Your task to perform on an android device: Open notification settings Image 0: 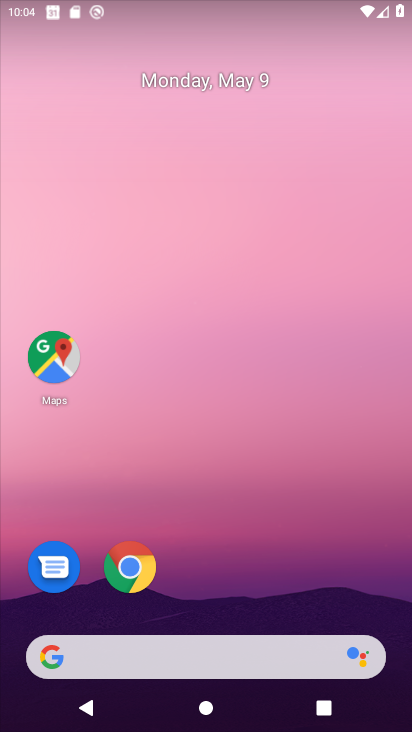
Step 0: drag from (243, 643) to (223, 167)
Your task to perform on an android device: Open notification settings Image 1: 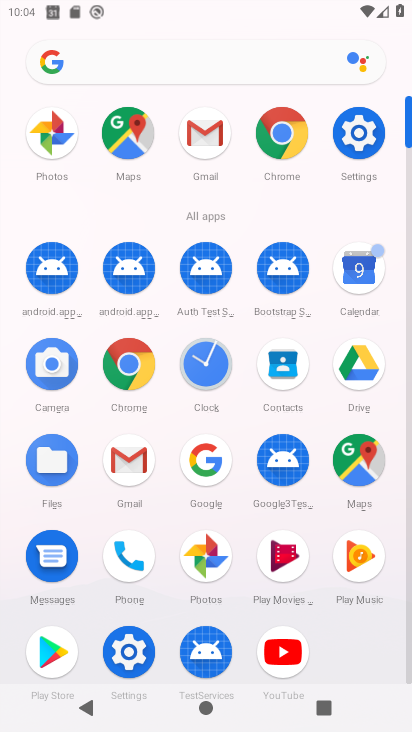
Step 1: click (343, 136)
Your task to perform on an android device: Open notification settings Image 2: 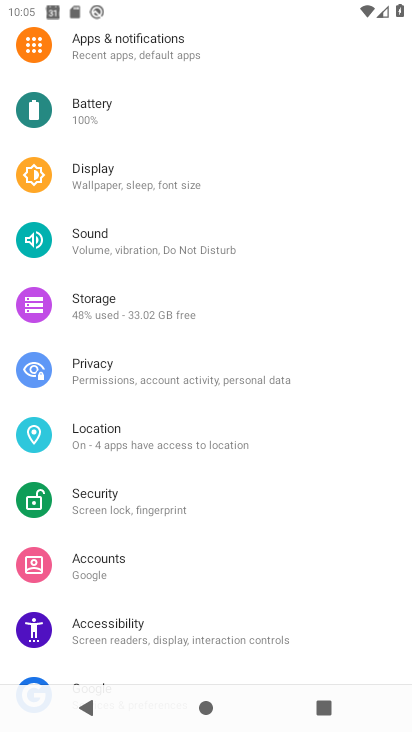
Step 2: click (96, 60)
Your task to perform on an android device: Open notification settings Image 3: 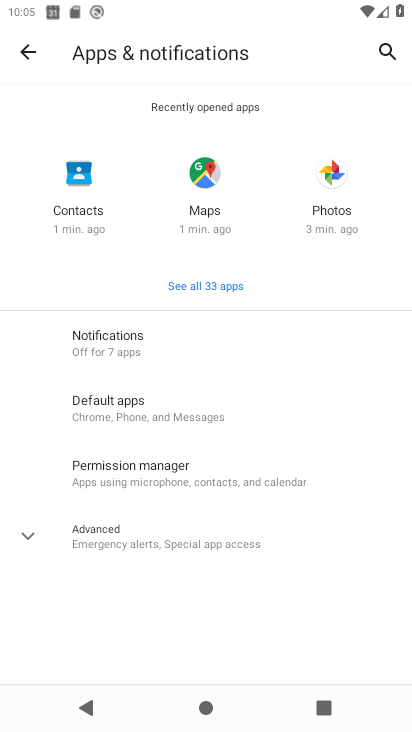
Step 3: click (153, 550)
Your task to perform on an android device: Open notification settings Image 4: 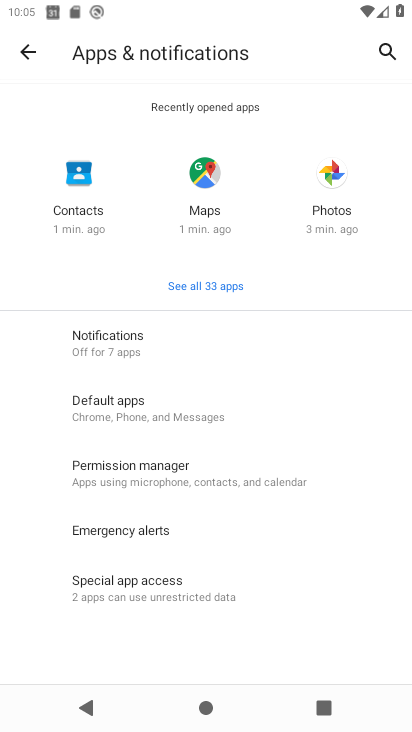
Step 4: task complete